Your task to perform on an android device: remove spam from my inbox in the gmail app Image 0: 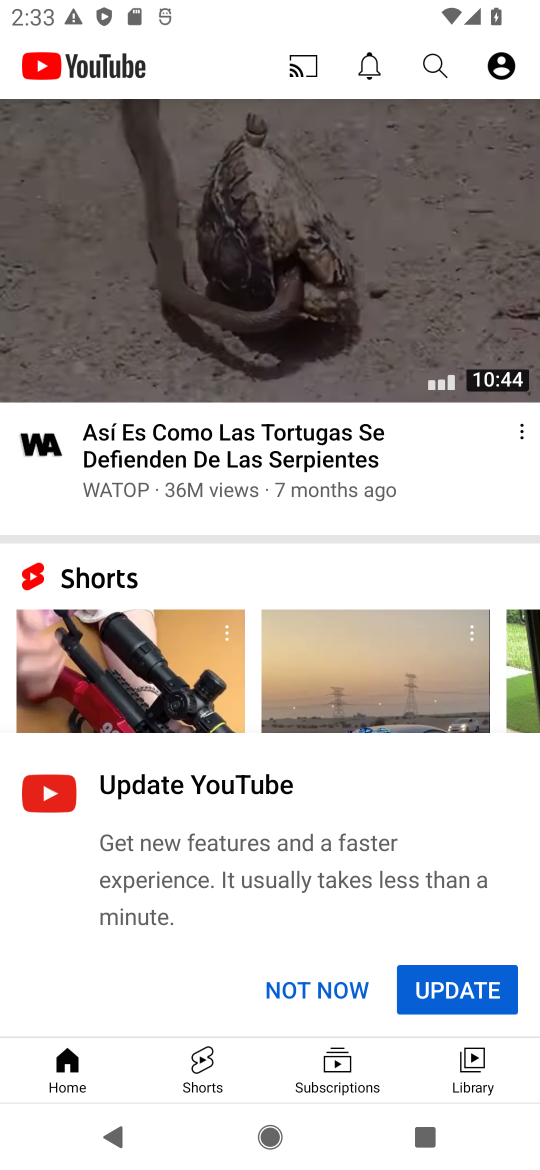
Step 0: press home button
Your task to perform on an android device: remove spam from my inbox in the gmail app Image 1: 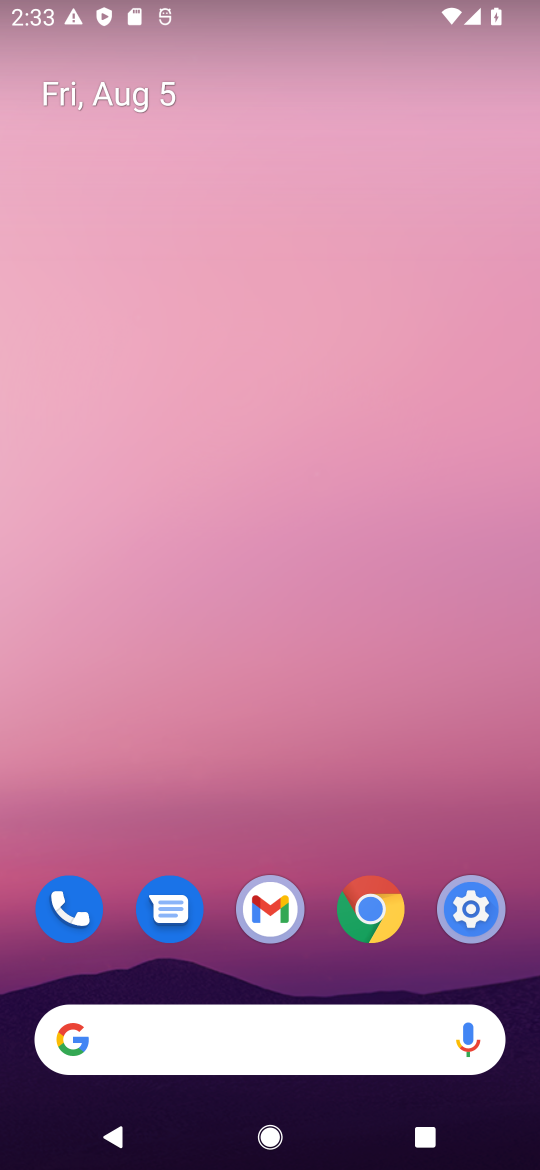
Step 1: drag from (405, 842) to (402, 447)
Your task to perform on an android device: remove spam from my inbox in the gmail app Image 2: 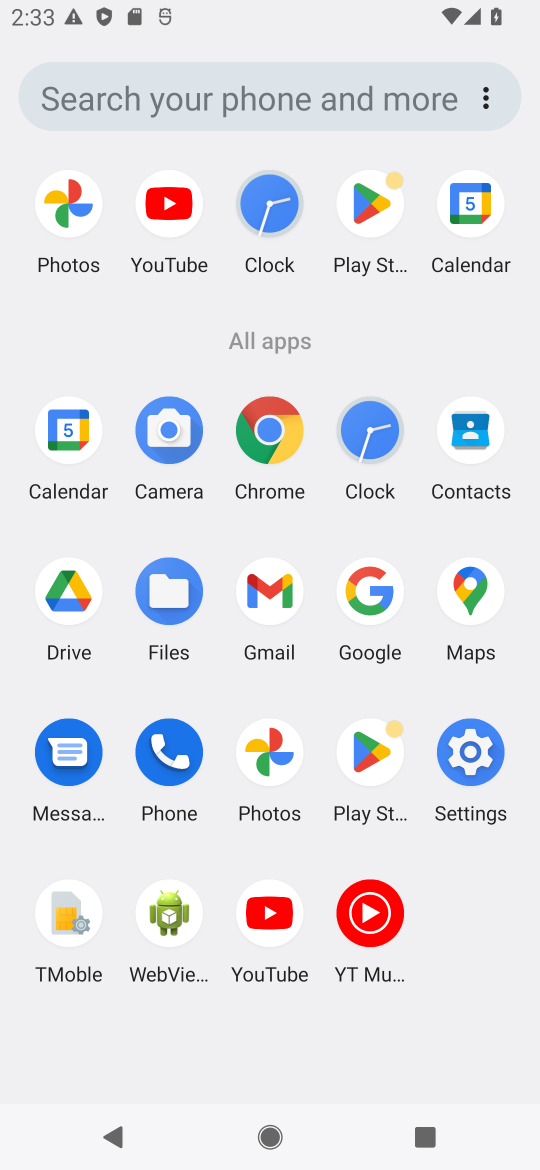
Step 2: click (269, 581)
Your task to perform on an android device: remove spam from my inbox in the gmail app Image 3: 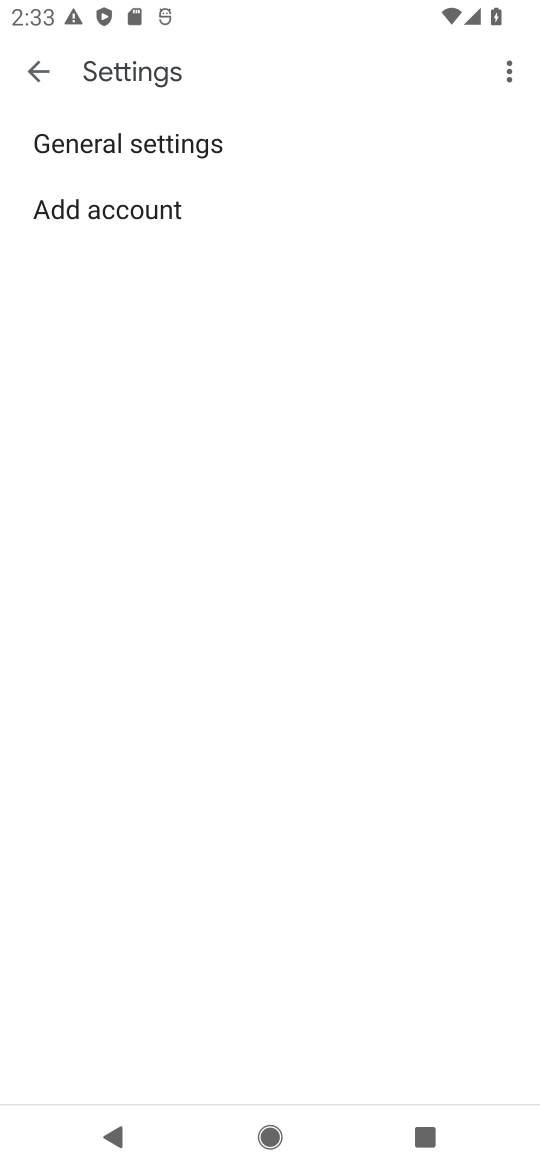
Step 3: task complete